Your task to perform on an android device: Open CNN.com Image 0: 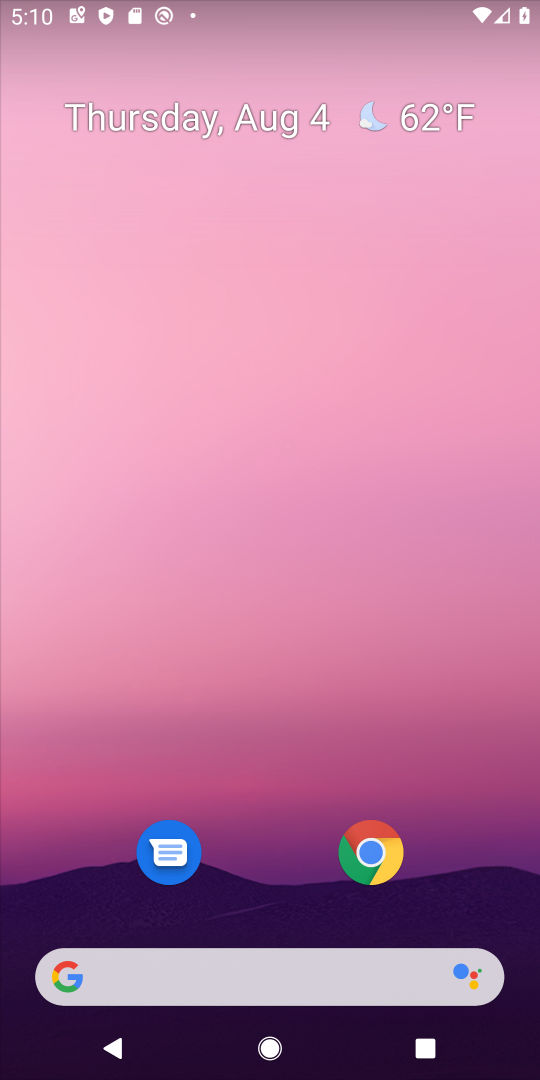
Step 0: click (379, 852)
Your task to perform on an android device: Open CNN.com Image 1: 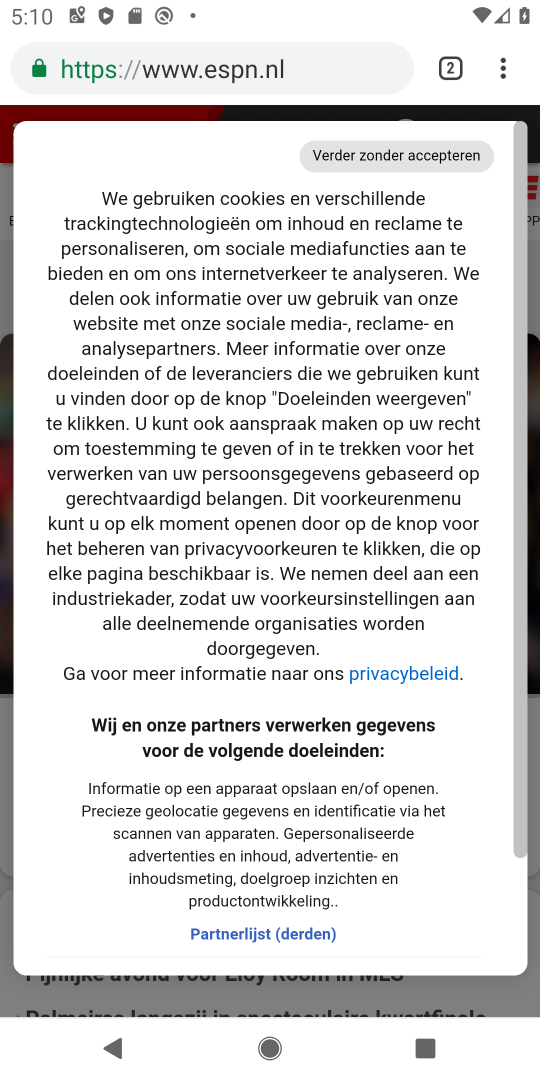
Step 1: click (505, 77)
Your task to perform on an android device: Open CNN.com Image 2: 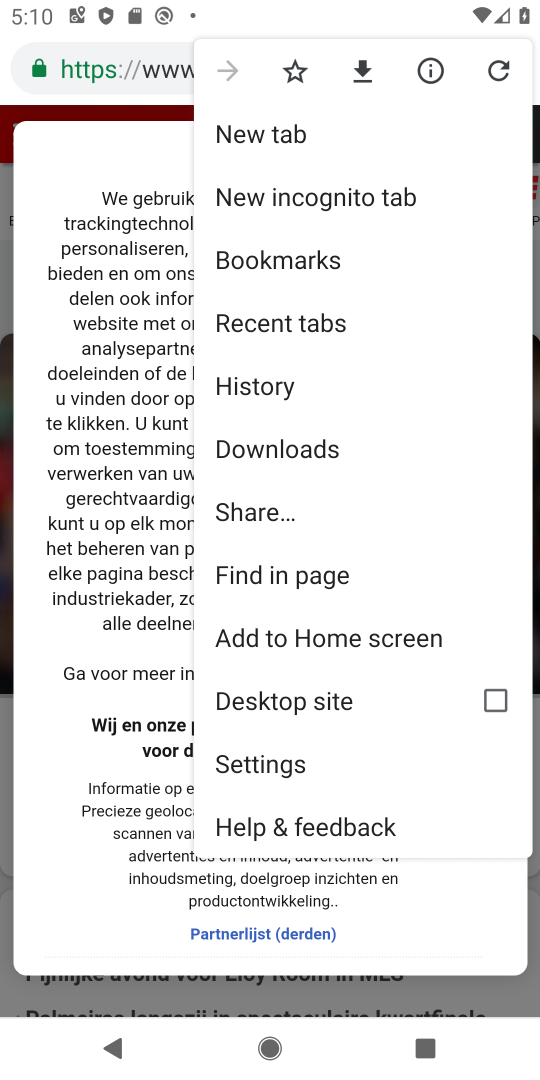
Step 2: click (265, 126)
Your task to perform on an android device: Open CNN.com Image 3: 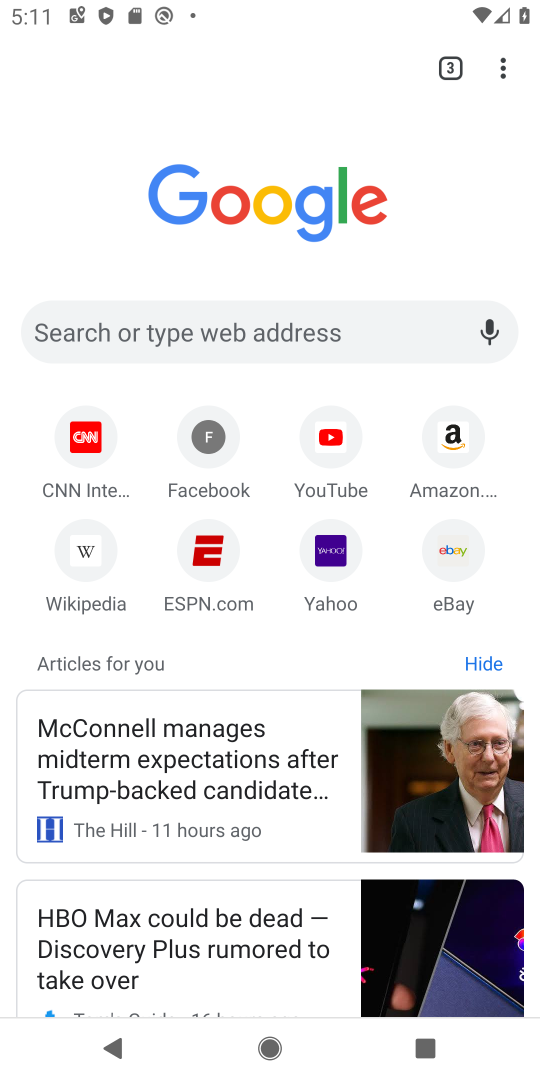
Step 3: click (76, 441)
Your task to perform on an android device: Open CNN.com Image 4: 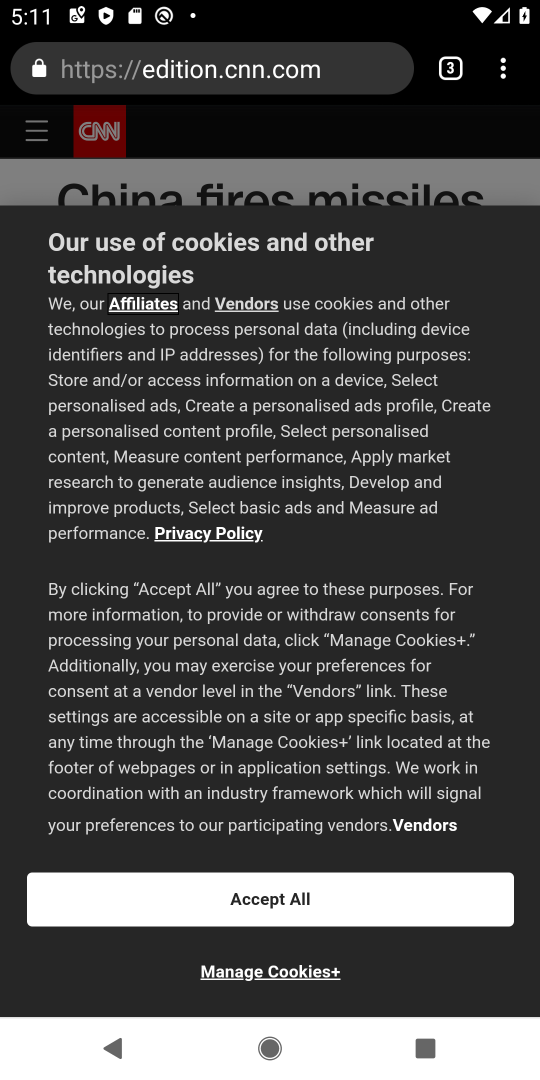
Step 4: task complete